Your task to perform on an android device: manage bookmarks in the chrome app Image 0: 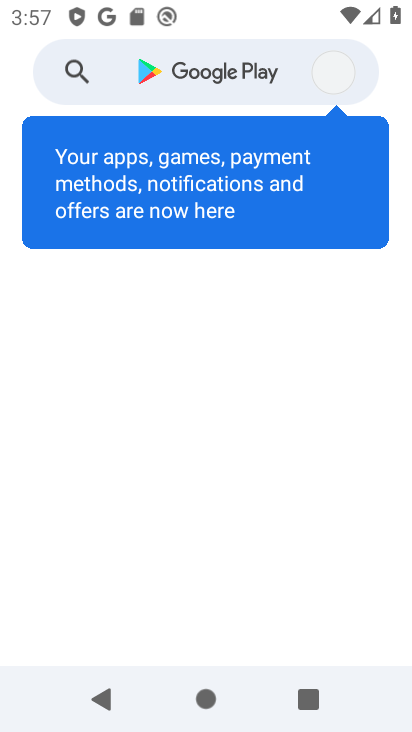
Step 0: press home button
Your task to perform on an android device: manage bookmarks in the chrome app Image 1: 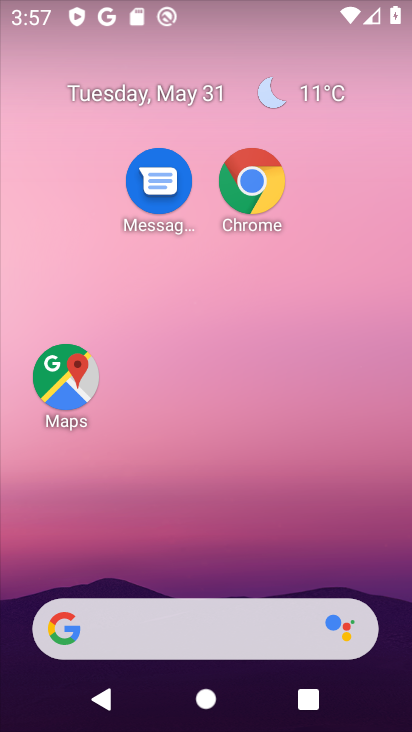
Step 1: click (251, 185)
Your task to perform on an android device: manage bookmarks in the chrome app Image 2: 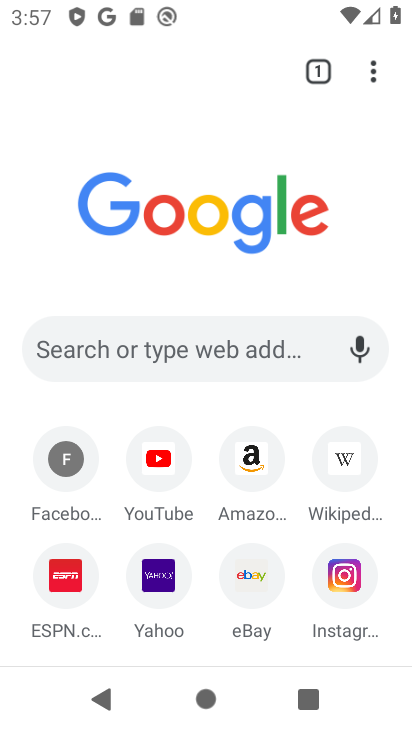
Step 2: click (368, 73)
Your task to perform on an android device: manage bookmarks in the chrome app Image 3: 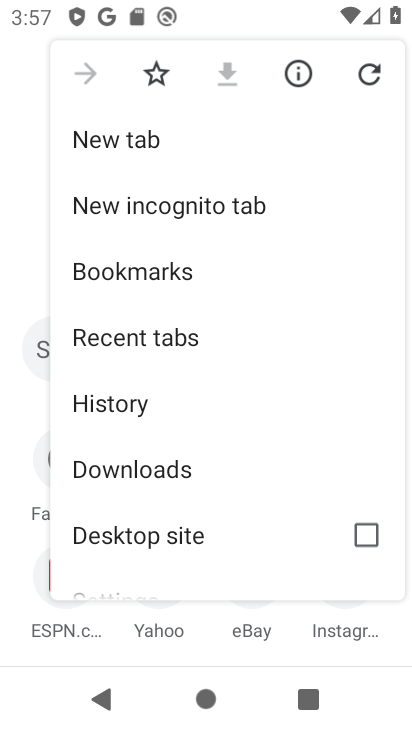
Step 3: drag from (231, 559) to (274, 70)
Your task to perform on an android device: manage bookmarks in the chrome app Image 4: 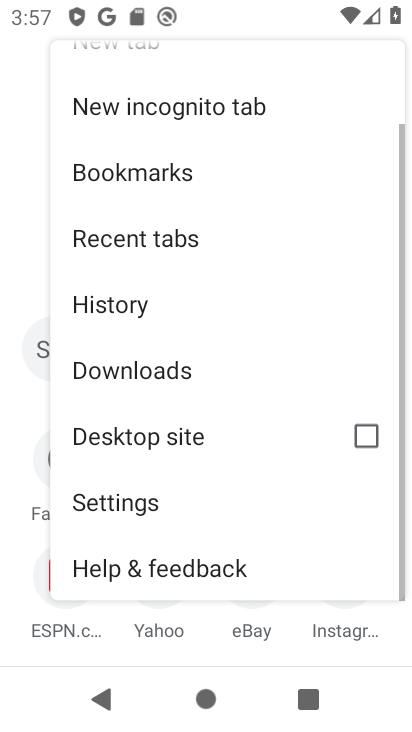
Step 4: click (148, 176)
Your task to perform on an android device: manage bookmarks in the chrome app Image 5: 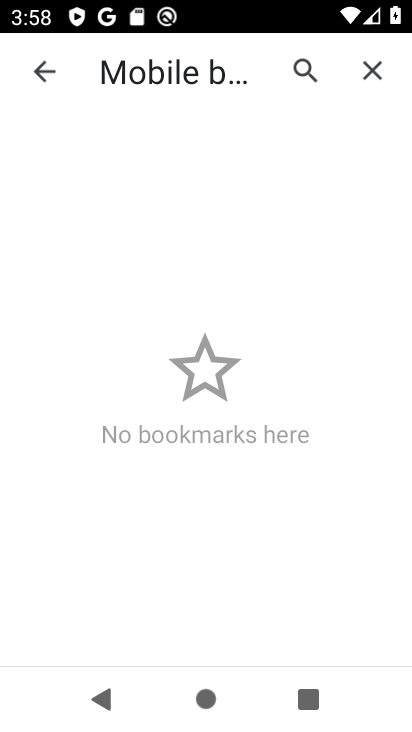
Step 5: task complete